Your task to perform on an android device: Open Google Chrome and click the shortcut for Amazon.com Image 0: 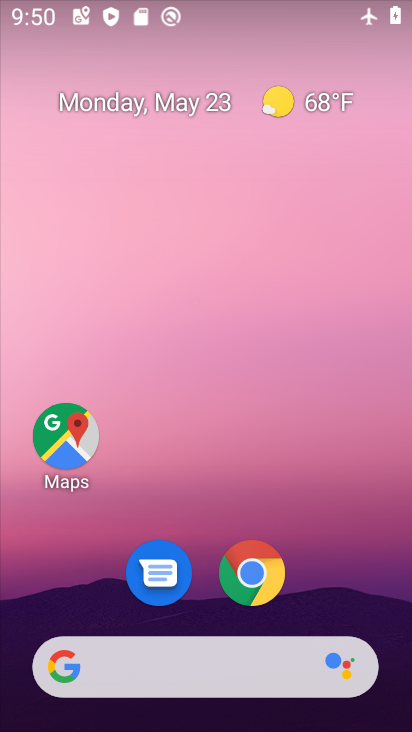
Step 0: click (262, 589)
Your task to perform on an android device: Open Google Chrome and click the shortcut for Amazon.com Image 1: 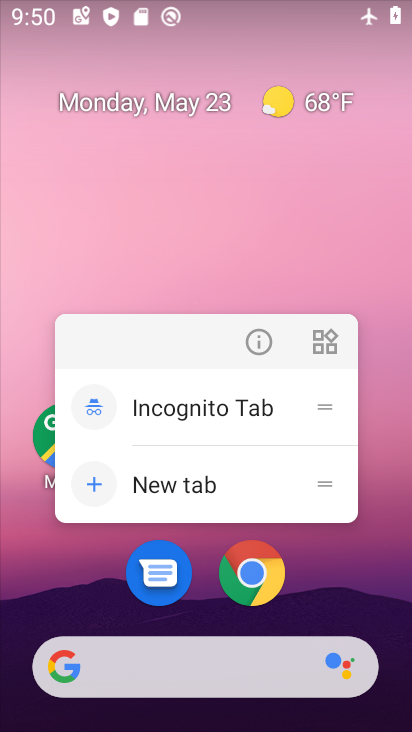
Step 1: click (262, 589)
Your task to perform on an android device: Open Google Chrome and click the shortcut for Amazon.com Image 2: 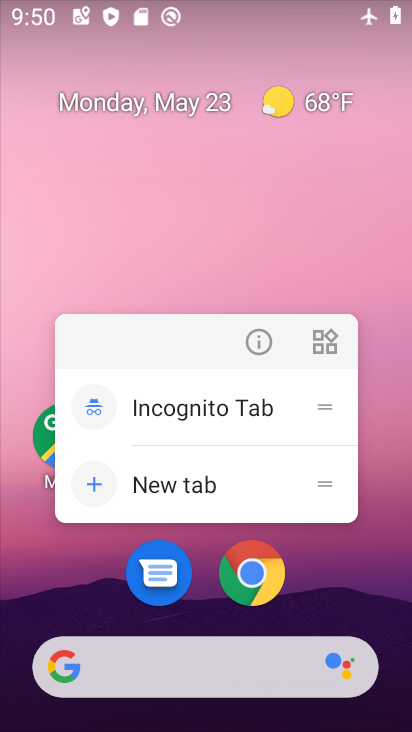
Step 2: click (244, 589)
Your task to perform on an android device: Open Google Chrome and click the shortcut for Amazon.com Image 3: 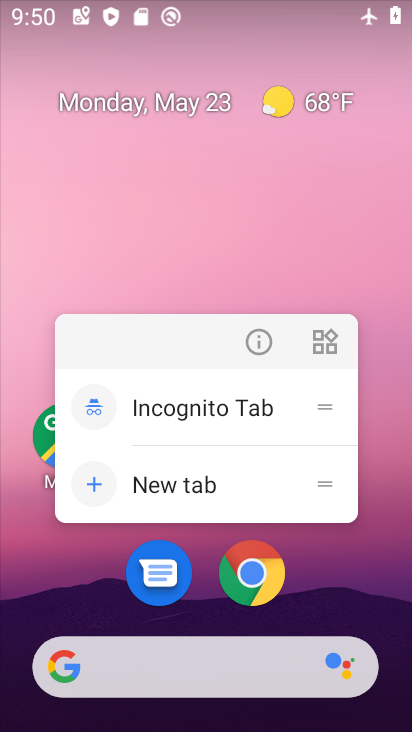
Step 3: click (249, 554)
Your task to perform on an android device: Open Google Chrome and click the shortcut for Amazon.com Image 4: 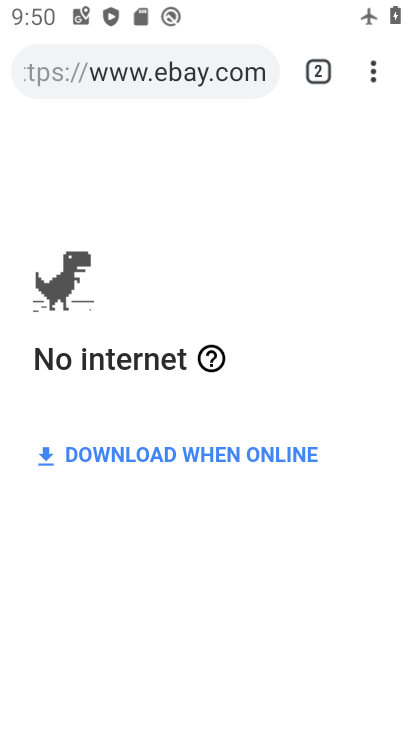
Step 4: click (233, 75)
Your task to perform on an android device: Open Google Chrome and click the shortcut for Amazon.com Image 5: 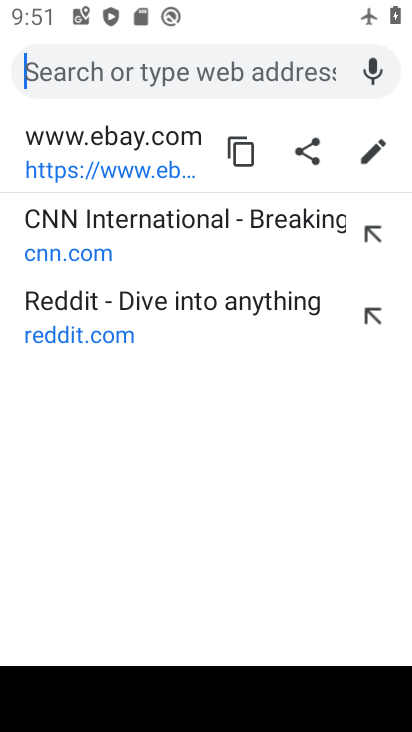
Step 5: type "amazon"
Your task to perform on an android device: Open Google Chrome and click the shortcut for Amazon.com Image 6: 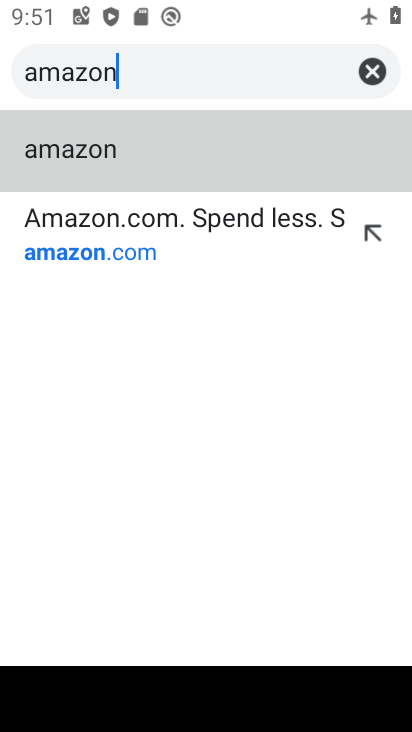
Step 6: click (210, 240)
Your task to perform on an android device: Open Google Chrome and click the shortcut for Amazon.com Image 7: 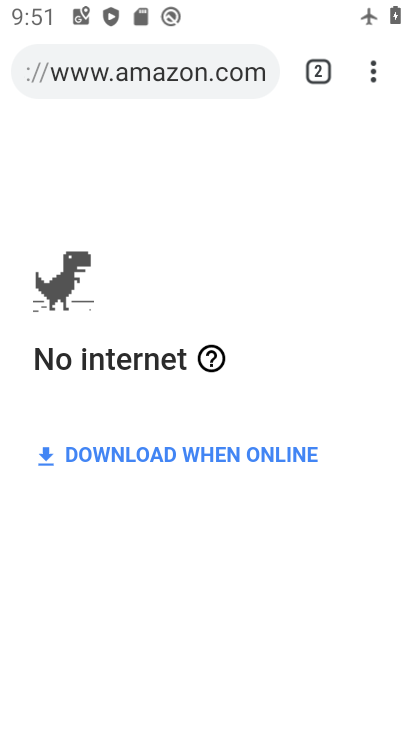
Step 7: task complete